Your task to perform on an android device: Open wifi settings Image 0: 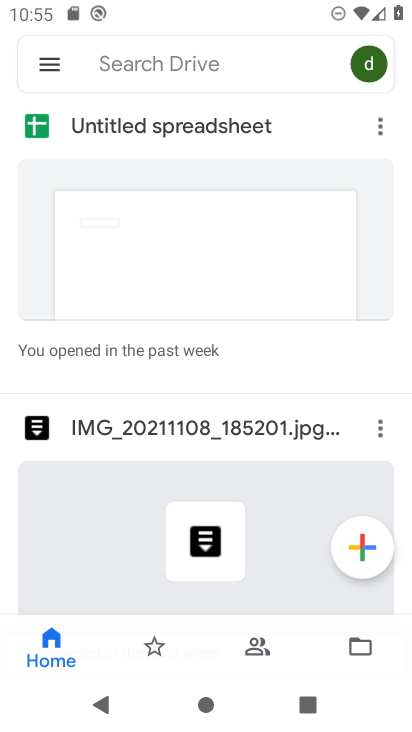
Step 0: press back button
Your task to perform on an android device: Open wifi settings Image 1: 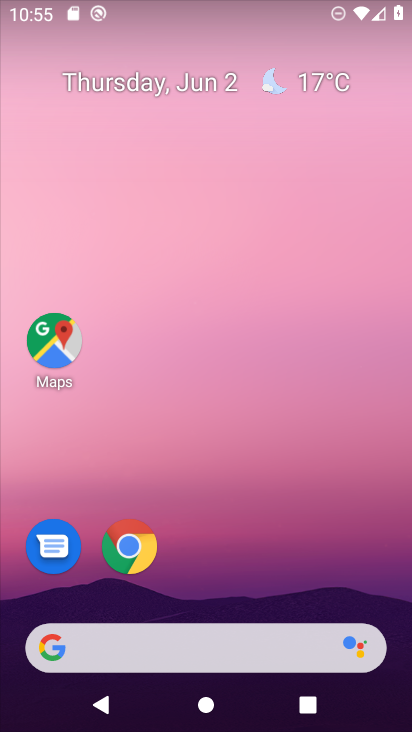
Step 1: drag from (241, 514) to (385, 453)
Your task to perform on an android device: Open wifi settings Image 2: 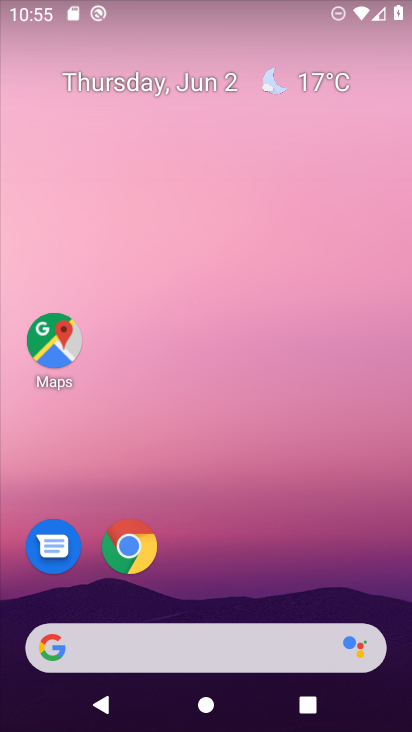
Step 2: drag from (3, 575) to (3, 90)
Your task to perform on an android device: Open wifi settings Image 3: 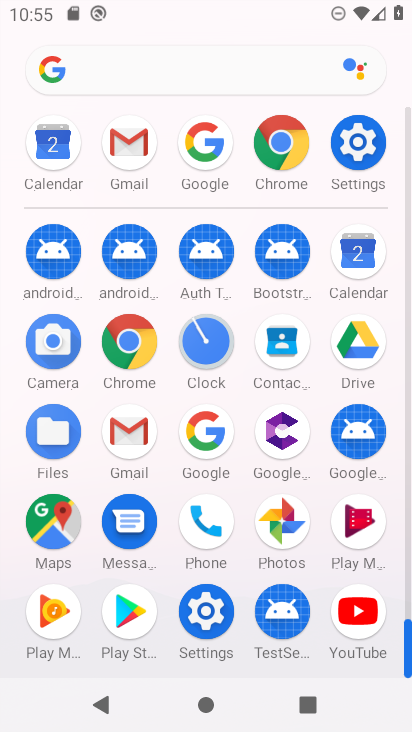
Step 3: drag from (403, 677) to (324, 262)
Your task to perform on an android device: Open wifi settings Image 4: 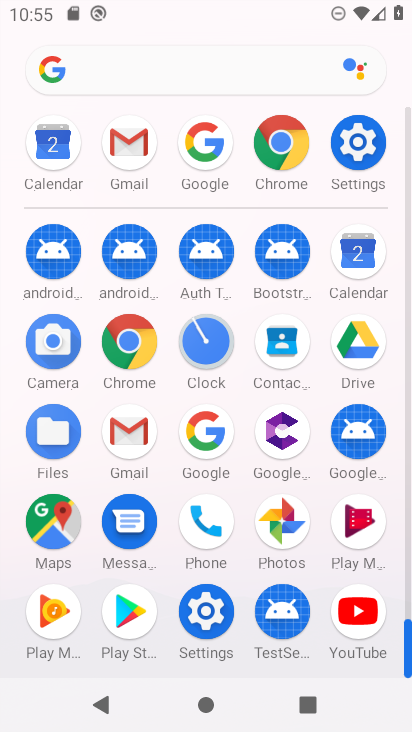
Step 4: click (205, 610)
Your task to perform on an android device: Open wifi settings Image 5: 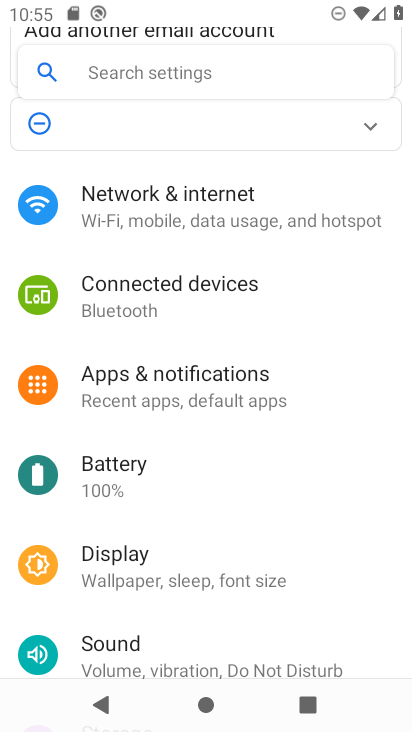
Step 5: click (192, 203)
Your task to perform on an android device: Open wifi settings Image 6: 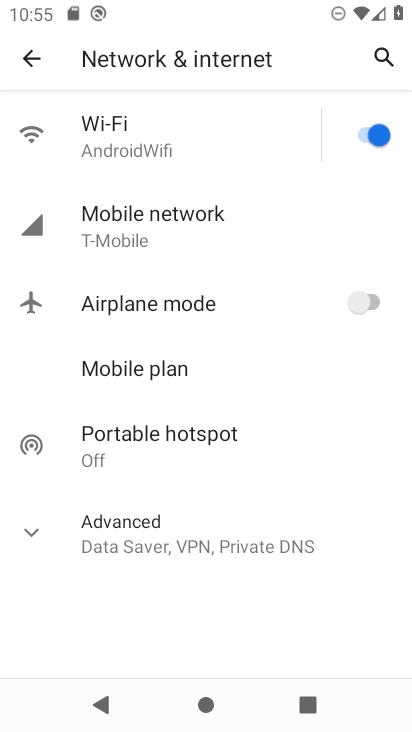
Step 6: click (144, 133)
Your task to perform on an android device: Open wifi settings Image 7: 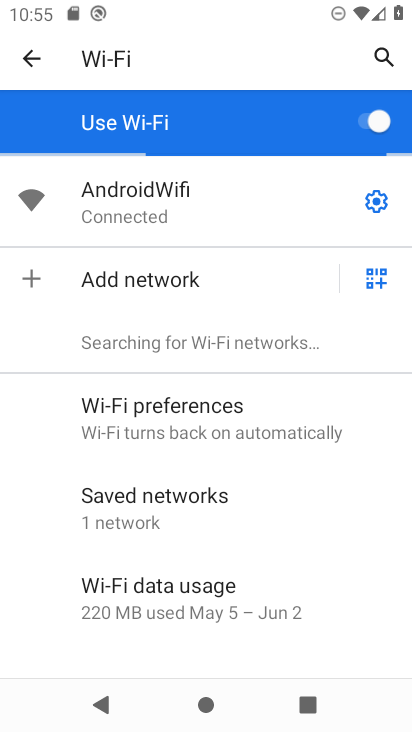
Step 7: task complete